Your task to perform on an android device: Search for vegetarian restaurants on Maps Image 0: 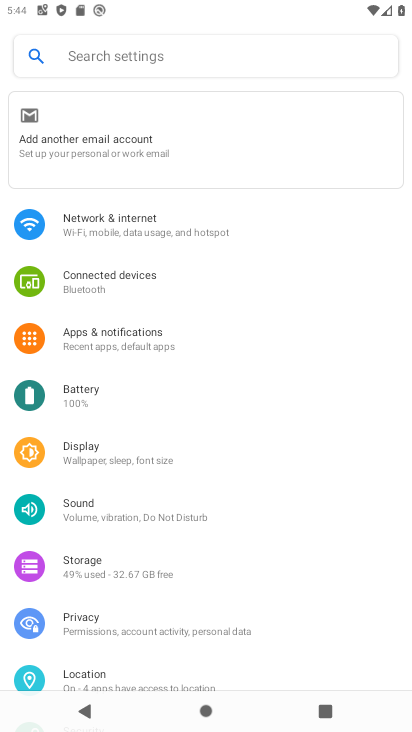
Step 0: press back button
Your task to perform on an android device: Search for vegetarian restaurants on Maps Image 1: 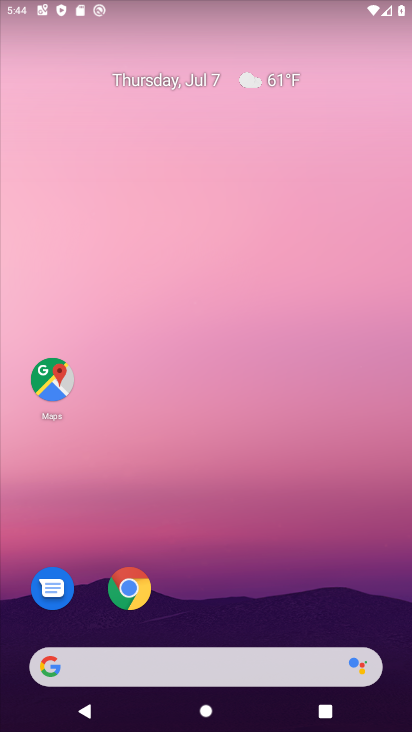
Step 1: click (45, 387)
Your task to perform on an android device: Search for vegetarian restaurants on Maps Image 2: 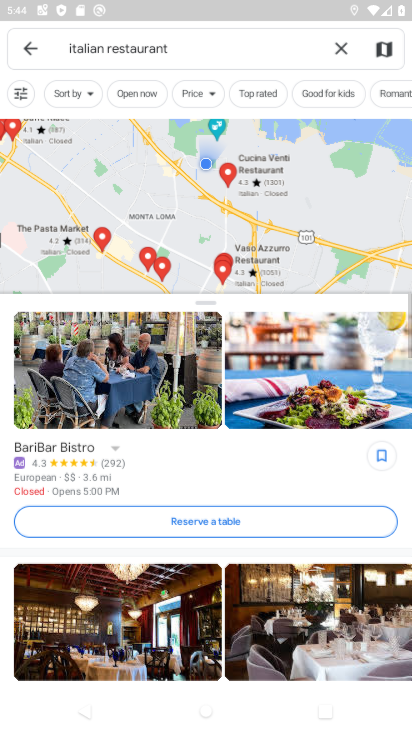
Step 2: click (336, 57)
Your task to perform on an android device: Search for vegetarian restaurants on Maps Image 3: 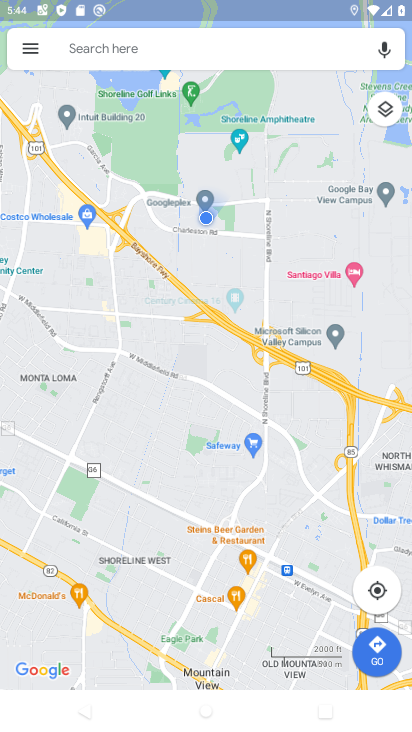
Step 3: click (79, 45)
Your task to perform on an android device: Search for vegetarian restaurants on Maps Image 4: 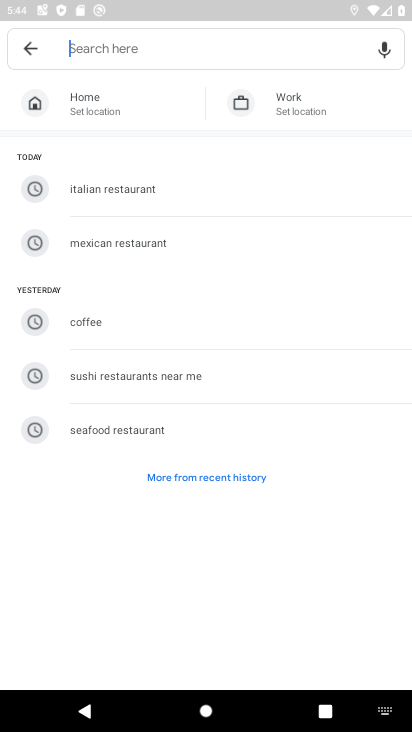
Step 4: type "vegetarian restaurants"
Your task to perform on an android device: Search for vegetarian restaurants on Maps Image 5: 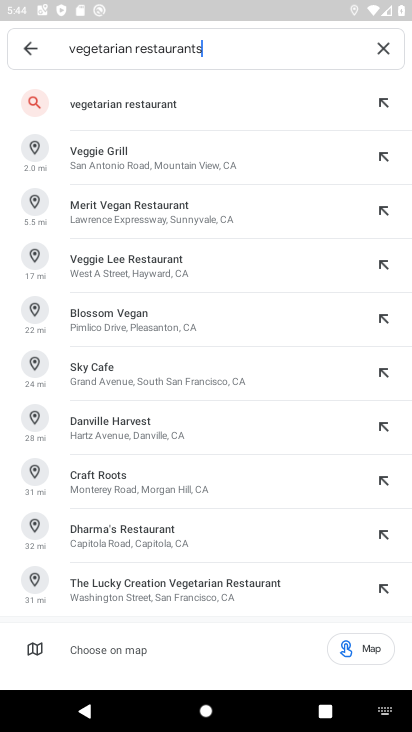
Step 5: click (120, 106)
Your task to perform on an android device: Search for vegetarian restaurants on Maps Image 6: 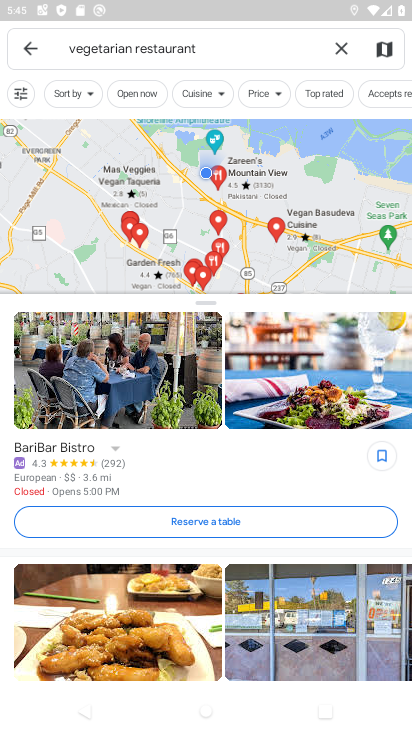
Step 6: task complete